Your task to perform on an android device: Go to sound settings Image 0: 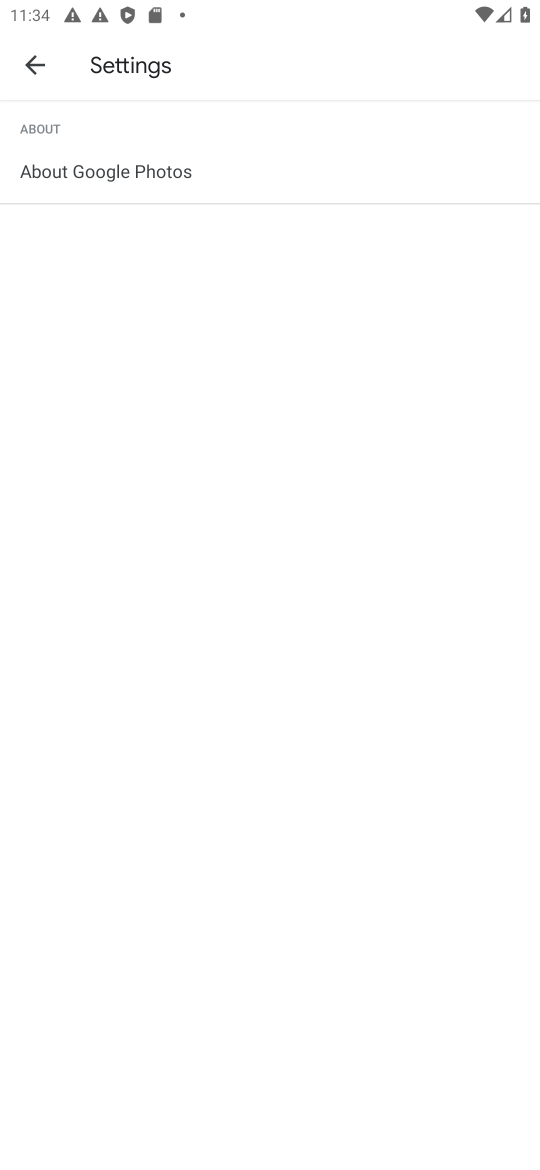
Step 0: press home button
Your task to perform on an android device: Go to sound settings Image 1: 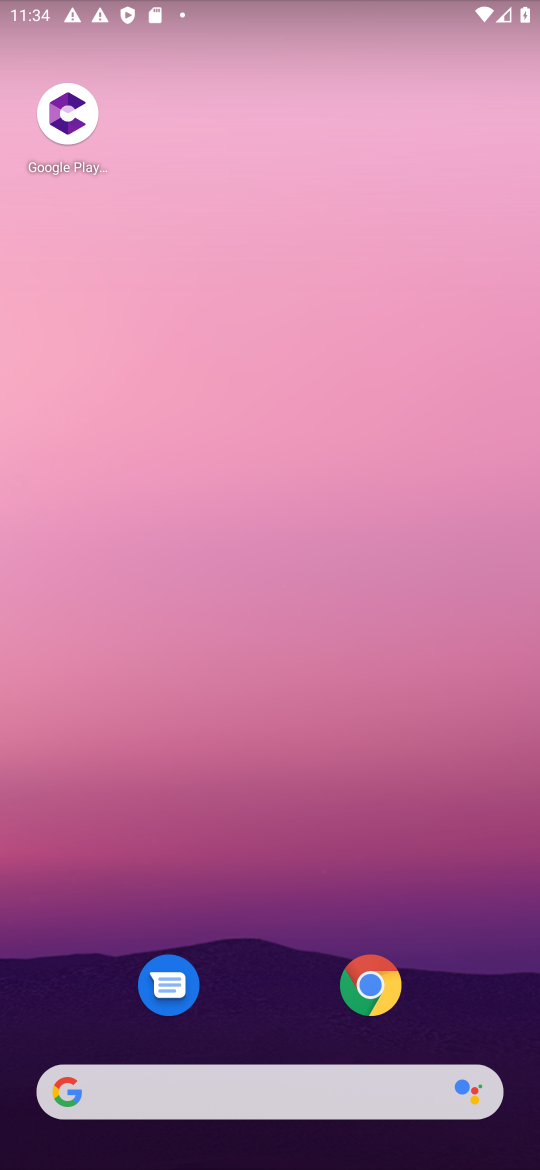
Step 1: drag from (379, 759) to (277, 257)
Your task to perform on an android device: Go to sound settings Image 2: 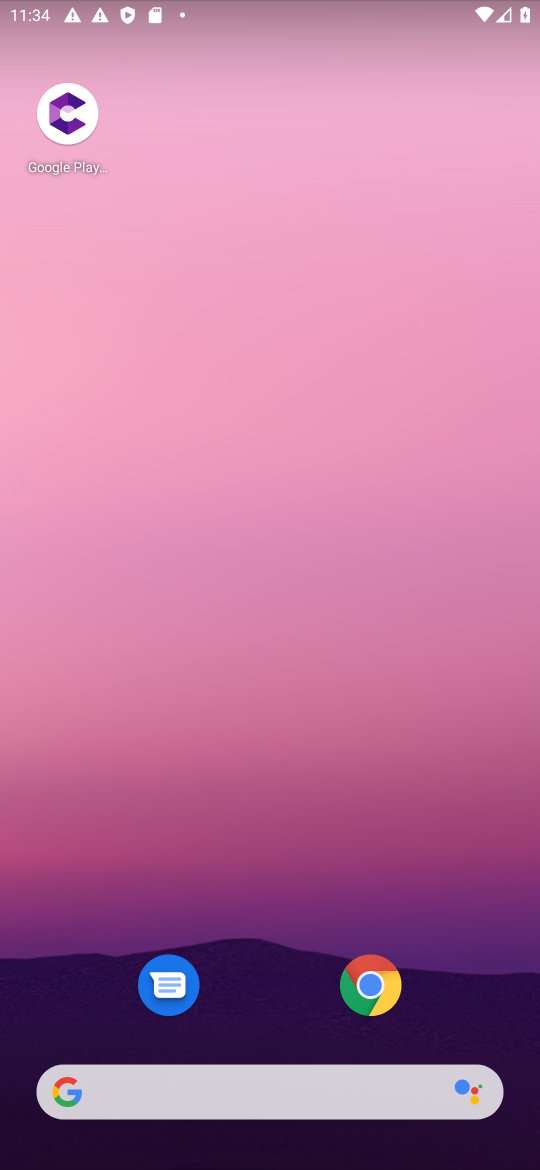
Step 2: drag from (257, 1106) to (295, 36)
Your task to perform on an android device: Go to sound settings Image 3: 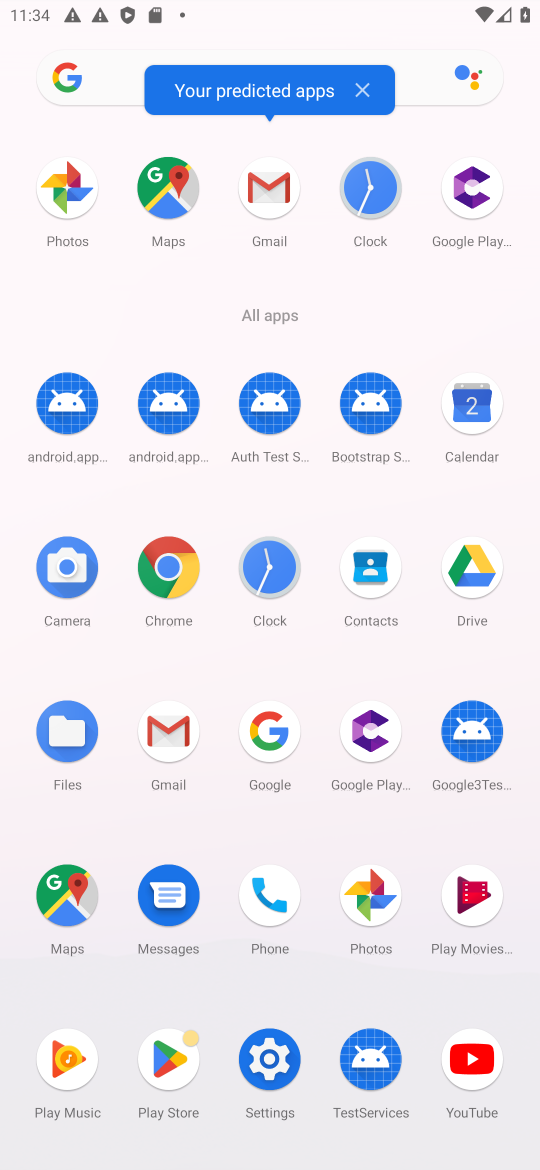
Step 3: drag from (254, 1043) to (411, 1008)
Your task to perform on an android device: Go to sound settings Image 4: 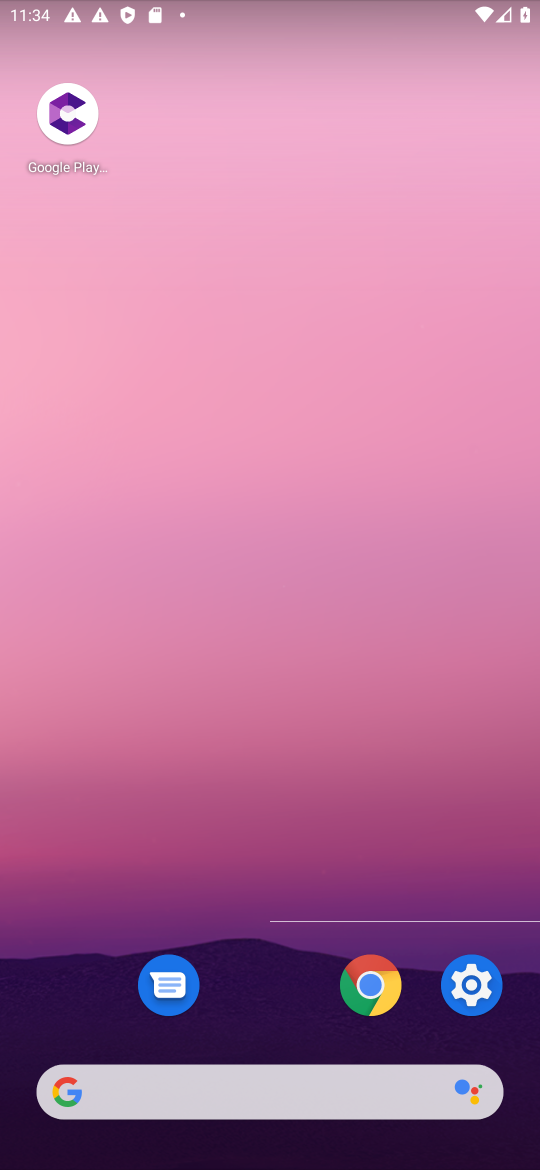
Step 4: click (489, 980)
Your task to perform on an android device: Go to sound settings Image 5: 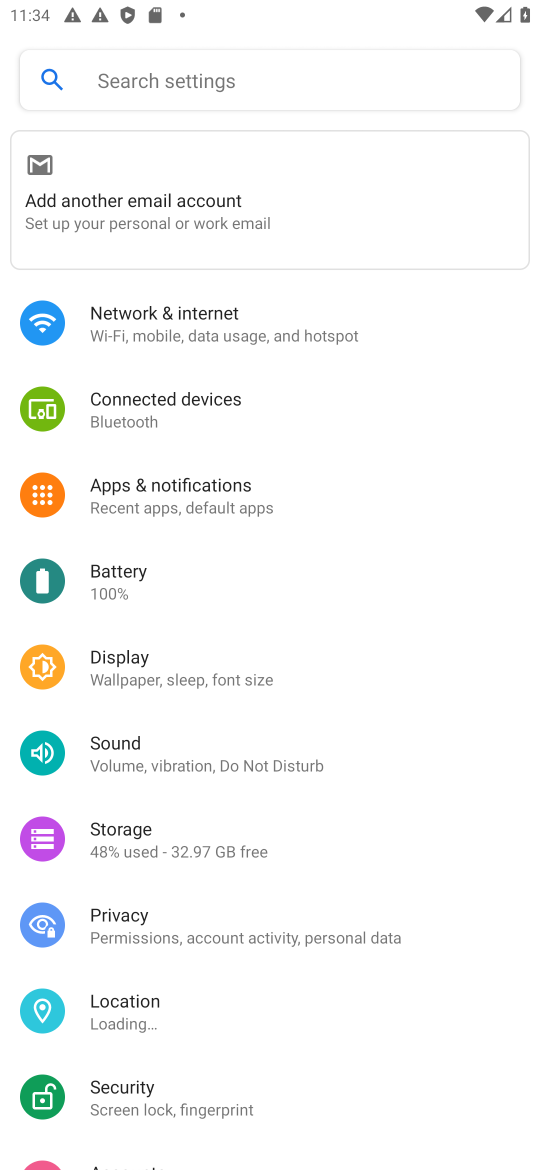
Step 5: click (155, 88)
Your task to perform on an android device: Go to sound settings Image 6: 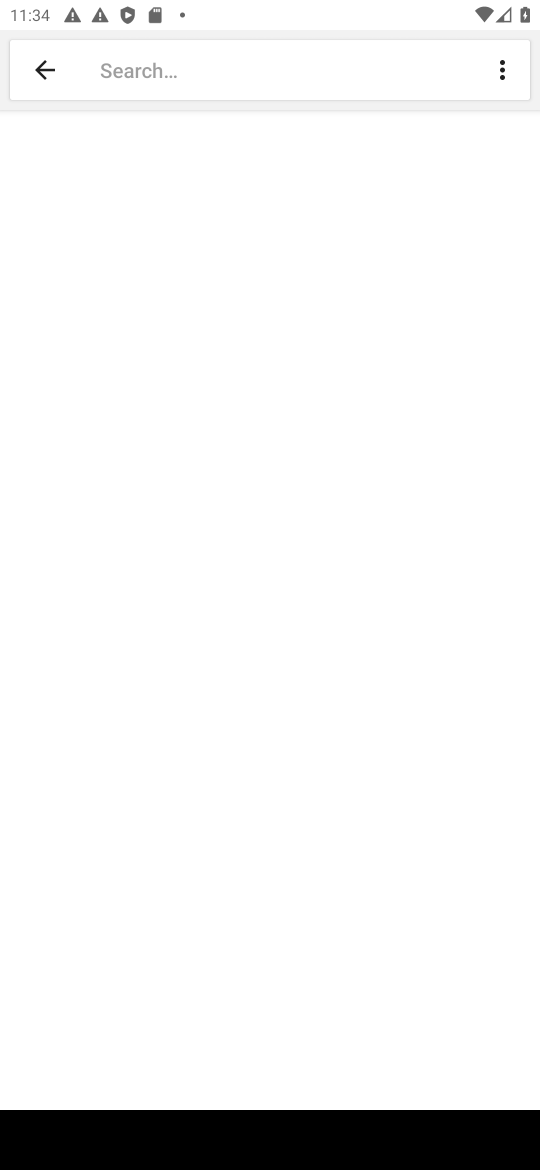
Step 6: drag from (511, 1163) to (510, 905)
Your task to perform on an android device: Go to sound settings Image 7: 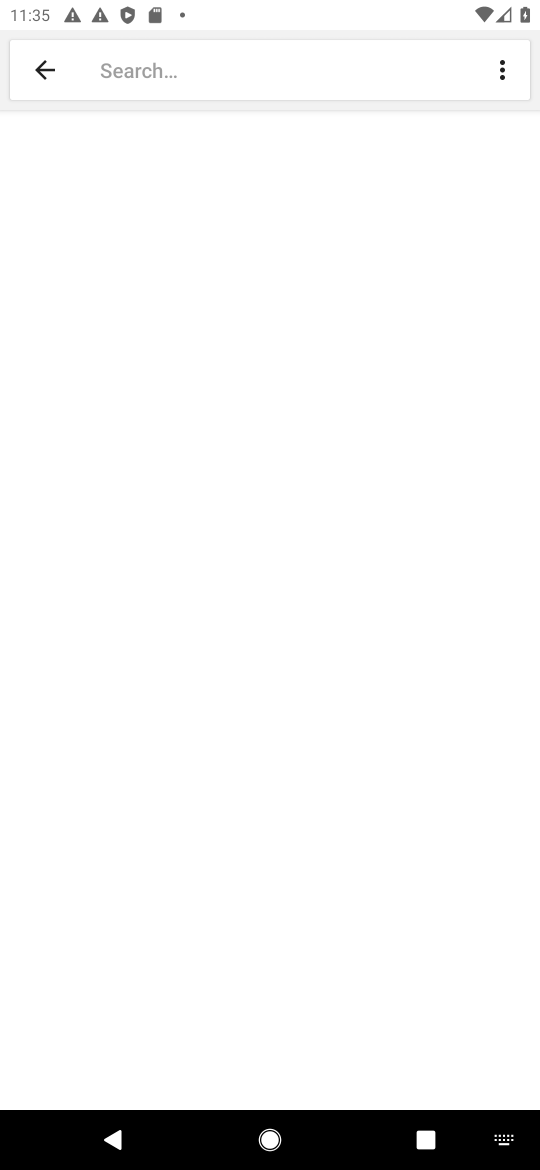
Step 7: click (513, 1148)
Your task to perform on an android device: Go to sound settings Image 8: 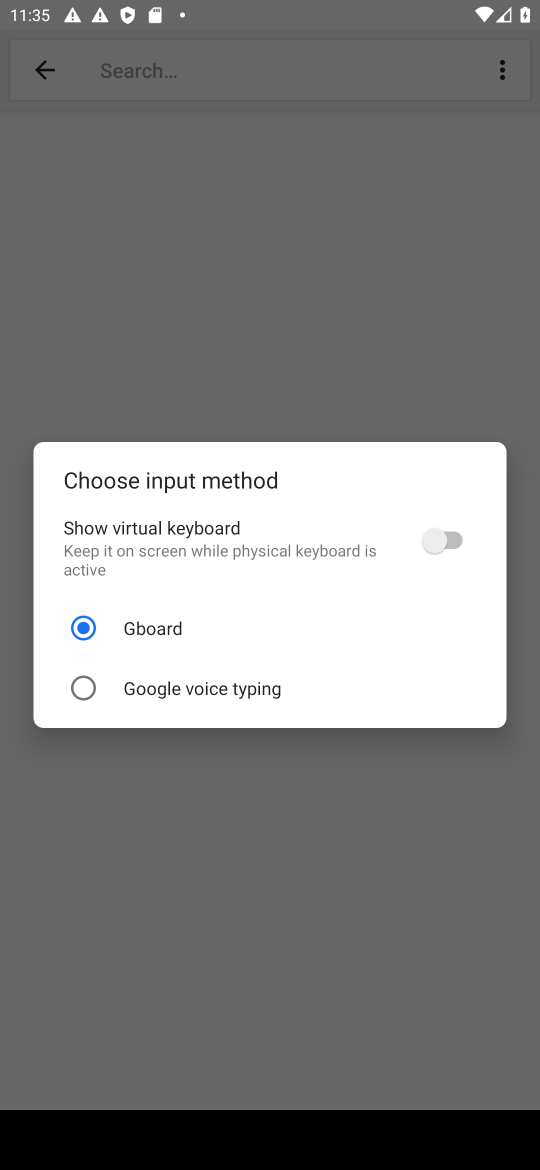
Step 8: click (439, 542)
Your task to perform on an android device: Go to sound settings Image 9: 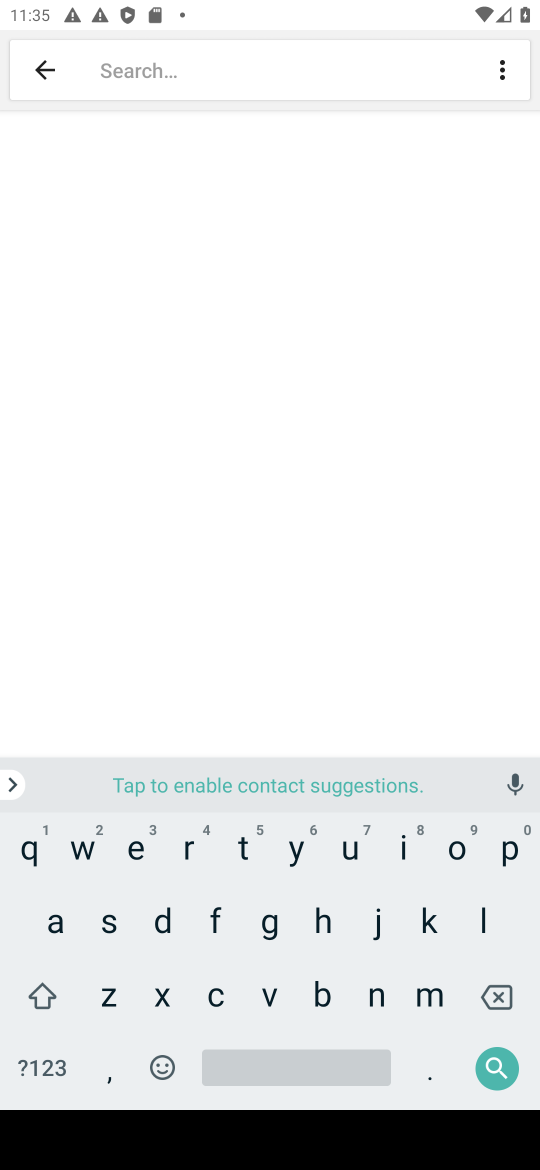
Step 9: click (99, 921)
Your task to perform on an android device: Go to sound settings Image 10: 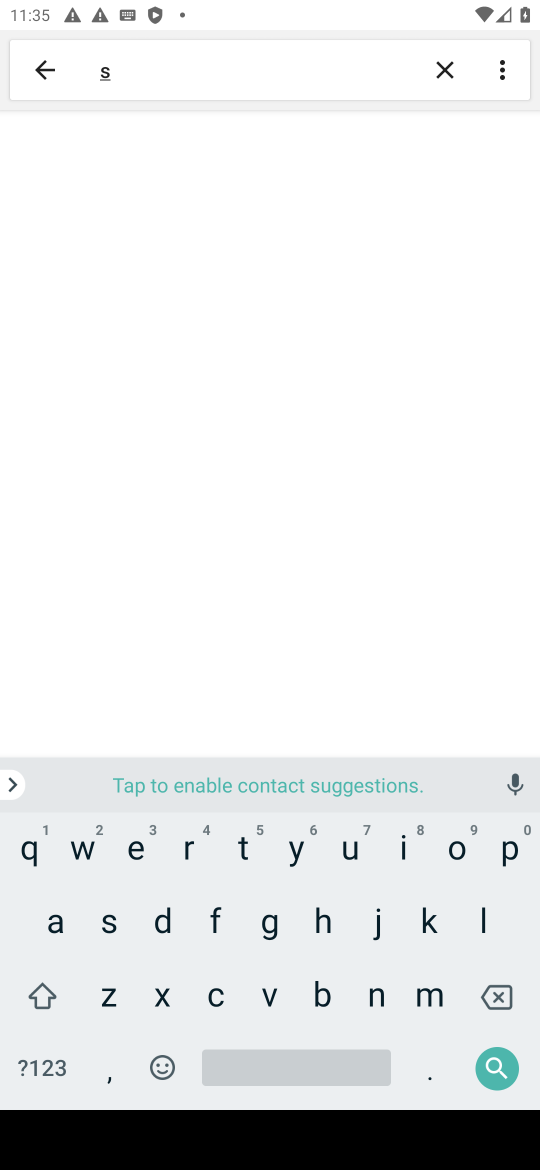
Step 10: click (458, 840)
Your task to perform on an android device: Go to sound settings Image 11: 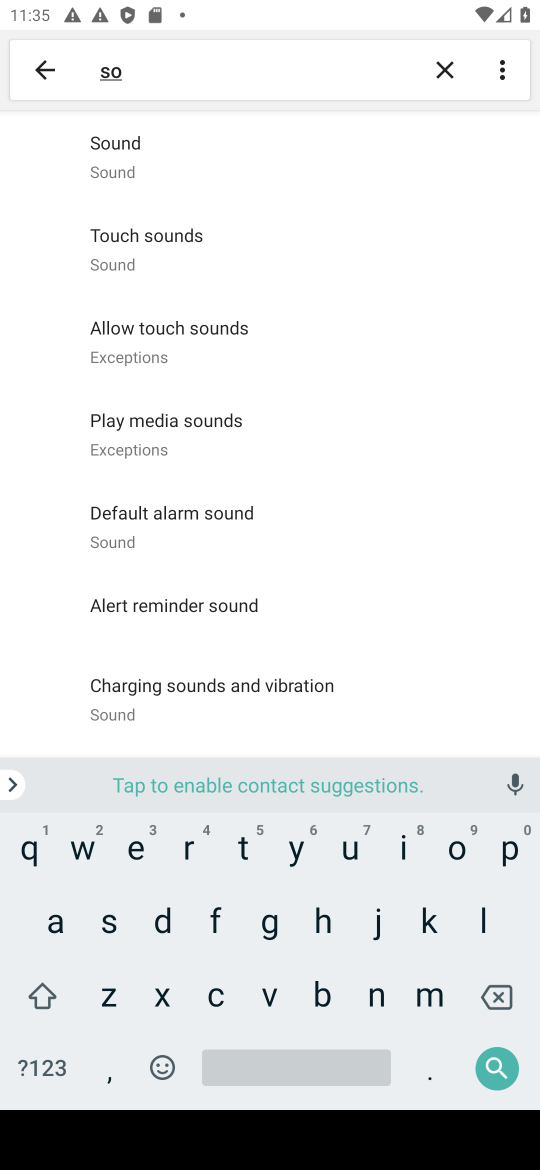
Step 11: click (138, 172)
Your task to perform on an android device: Go to sound settings Image 12: 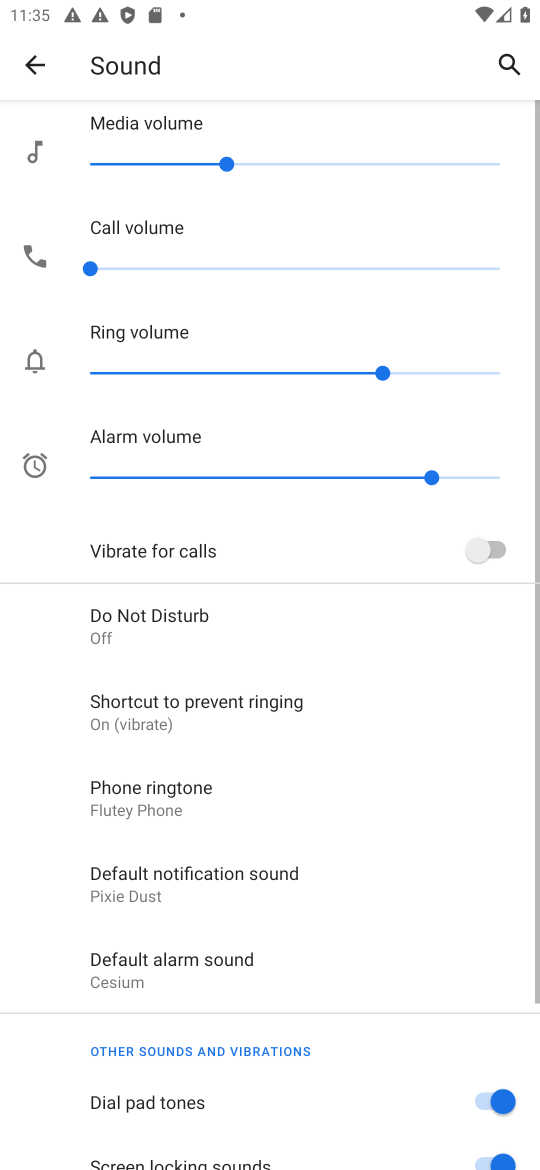
Step 12: click (132, 172)
Your task to perform on an android device: Go to sound settings Image 13: 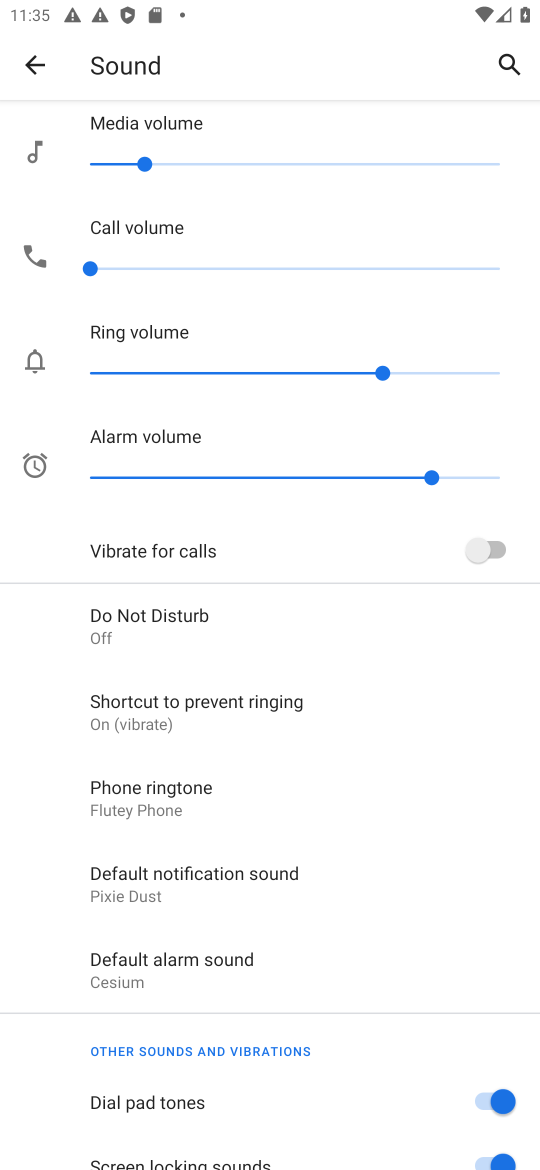
Step 13: task complete